Your task to perform on an android device: change text size in settings app Image 0: 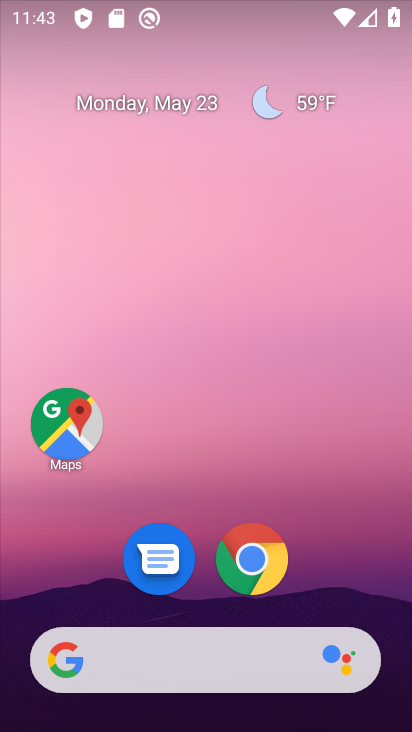
Step 0: drag from (403, 699) to (357, 274)
Your task to perform on an android device: change text size in settings app Image 1: 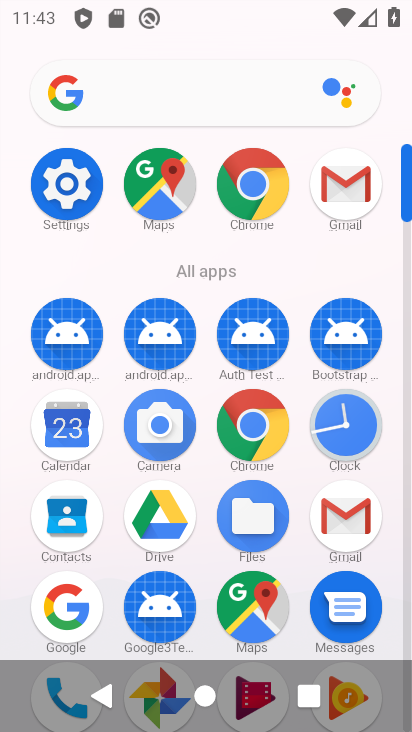
Step 1: click (82, 186)
Your task to perform on an android device: change text size in settings app Image 2: 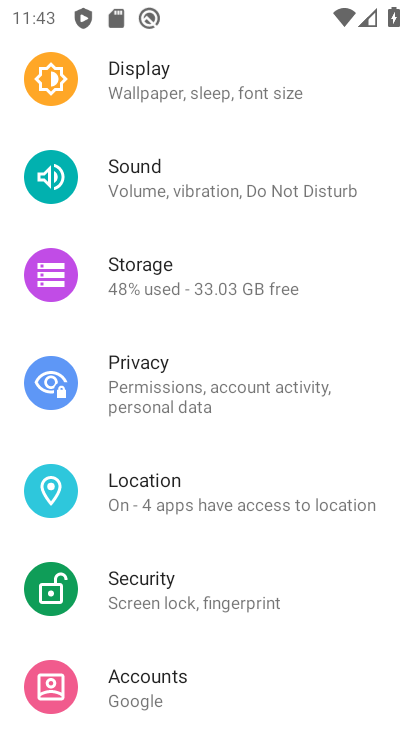
Step 2: drag from (288, 112) to (331, 443)
Your task to perform on an android device: change text size in settings app Image 3: 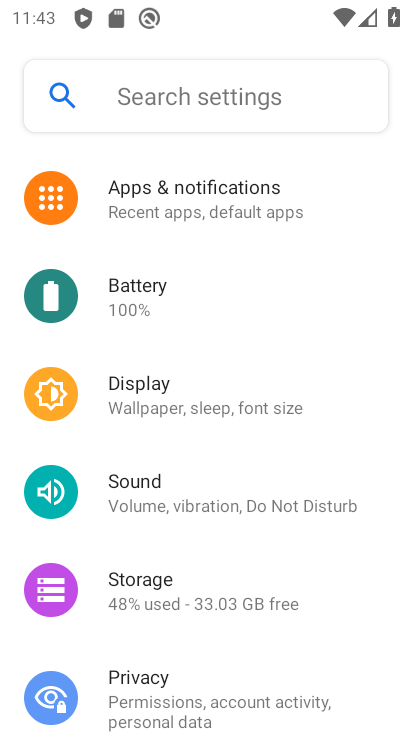
Step 3: click (190, 401)
Your task to perform on an android device: change text size in settings app Image 4: 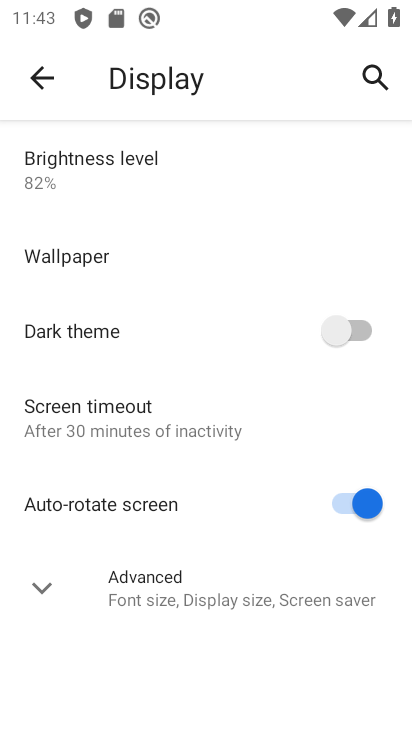
Step 4: click (35, 586)
Your task to perform on an android device: change text size in settings app Image 5: 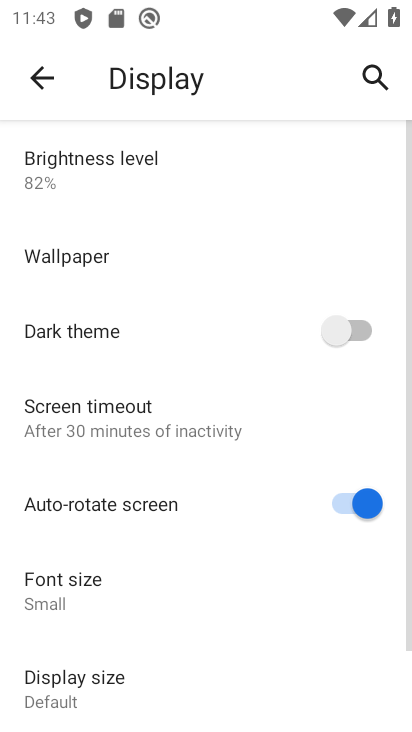
Step 5: drag from (243, 670) to (232, 310)
Your task to perform on an android device: change text size in settings app Image 6: 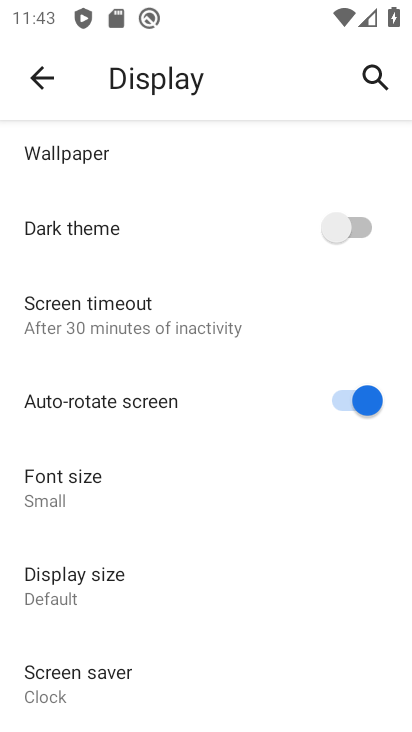
Step 6: click (51, 474)
Your task to perform on an android device: change text size in settings app Image 7: 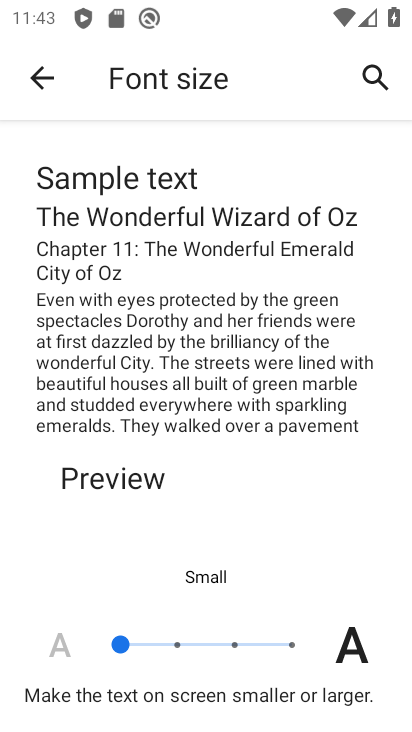
Step 7: click (157, 645)
Your task to perform on an android device: change text size in settings app Image 8: 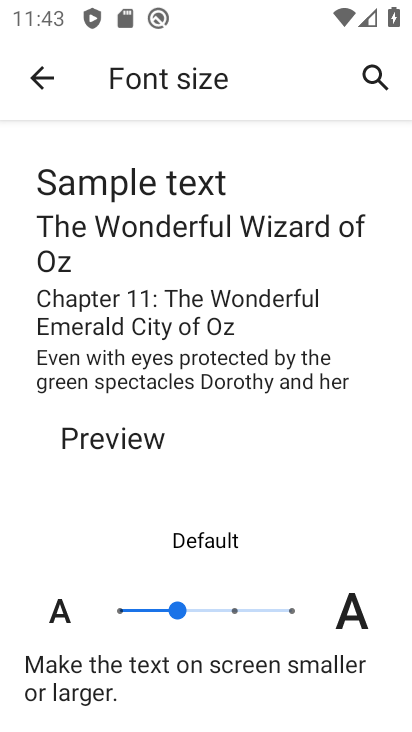
Step 8: task complete